Your task to perform on an android device: Open notification settings Image 0: 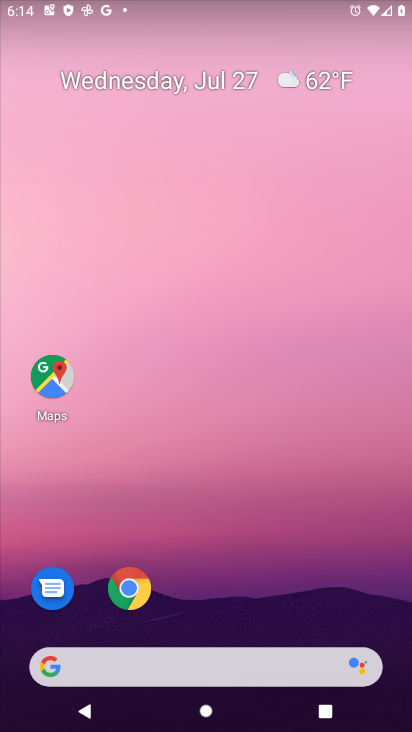
Step 0: drag from (206, 585) to (242, 180)
Your task to perform on an android device: Open notification settings Image 1: 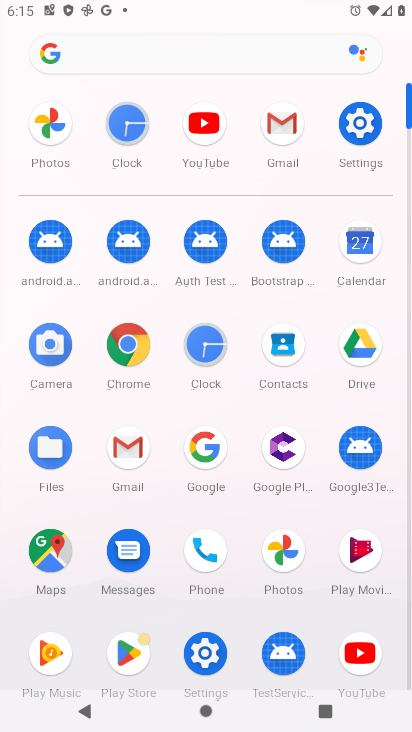
Step 1: click (349, 130)
Your task to perform on an android device: Open notification settings Image 2: 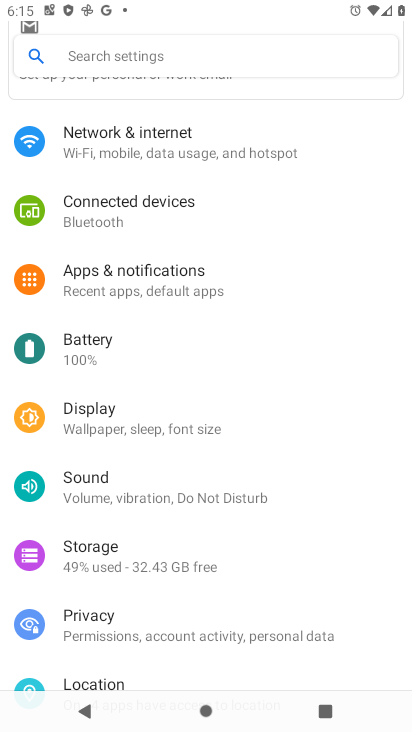
Step 2: click (147, 261)
Your task to perform on an android device: Open notification settings Image 3: 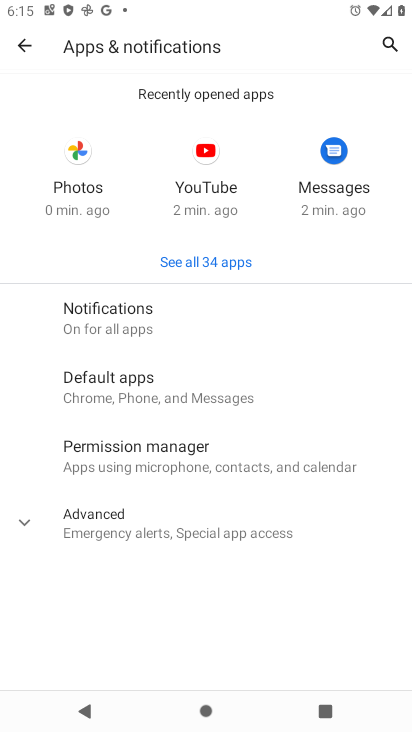
Step 3: task complete